Your task to perform on an android device: Search for Italian restaurants on Maps Image 0: 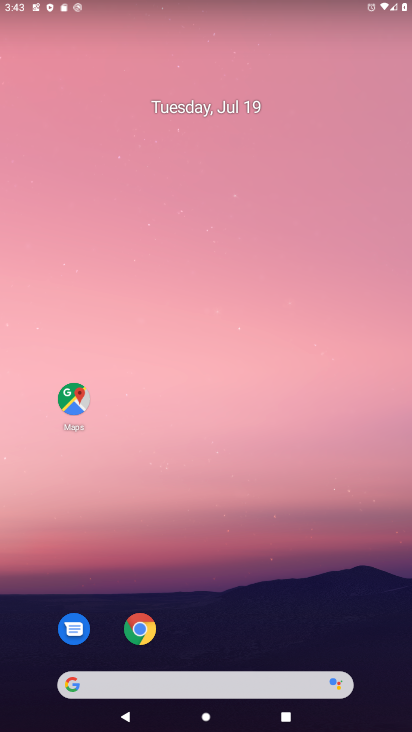
Step 0: drag from (190, 635) to (252, 139)
Your task to perform on an android device: Search for Italian restaurants on Maps Image 1: 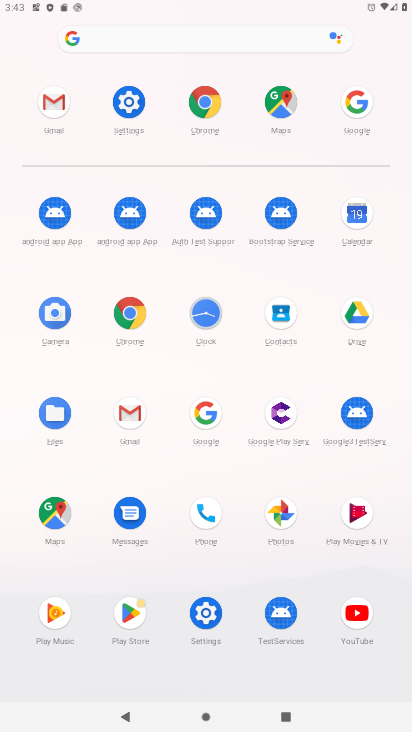
Step 1: click (290, 94)
Your task to perform on an android device: Search for Italian restaurants on Maps Image 2: 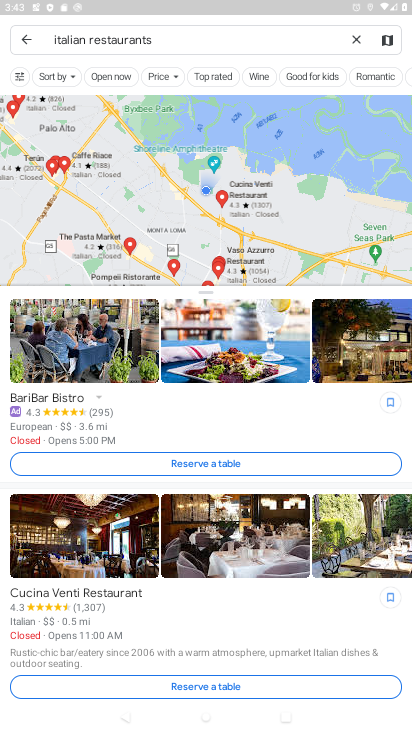
Step 2: task complete